Your task to perform on an android device: remove spam from my inbox in the gmail app Image 0: 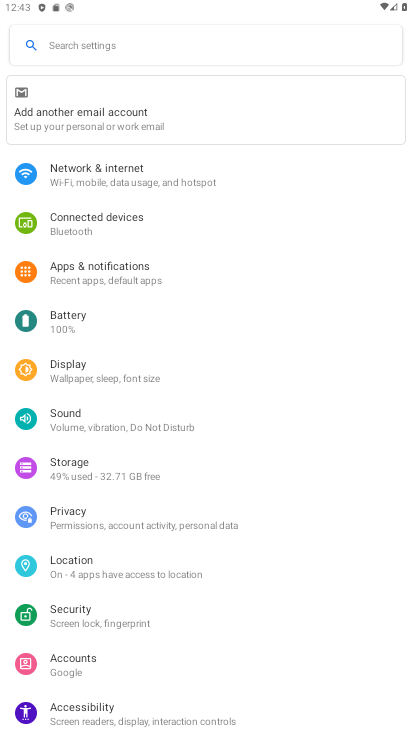
Step 0: press home button
Your task to perform on an android device: remove spam from my inbox in the gmail app Image 1: 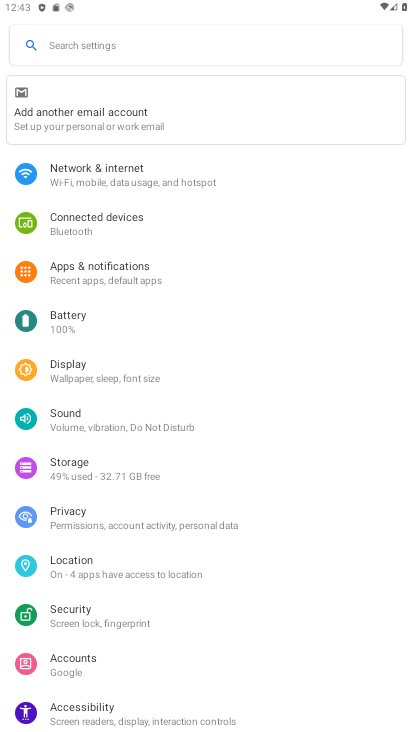
Step 1: drag from (190, 450) to (275, 1)
Your task to perform on an android device: remove spam from my inbox in the gmail app Image 2: 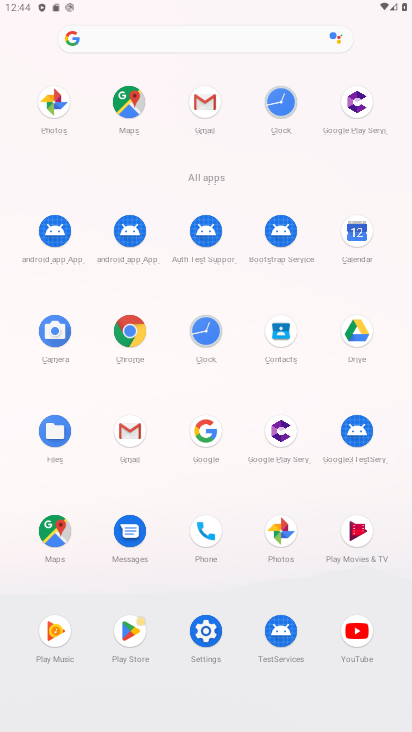
Step 2: click (204, 94)
Your task to perform on an android device: remove spam from my inbox in the gmail app Image 3: 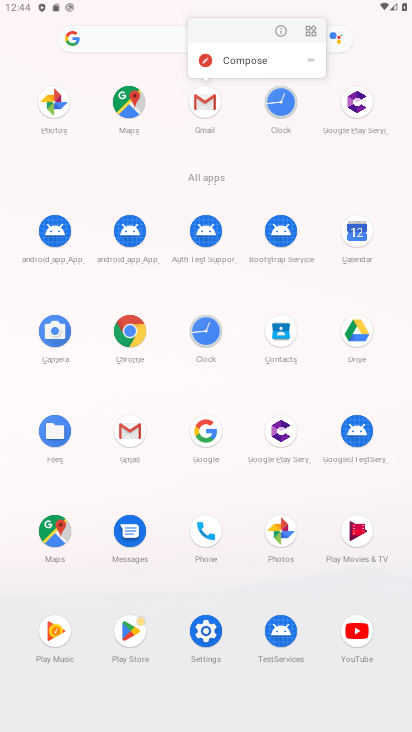
Step 3: click (279, 30)
Your task to perform on an android device: remove spam from my inbox in the gmail app Image 4: 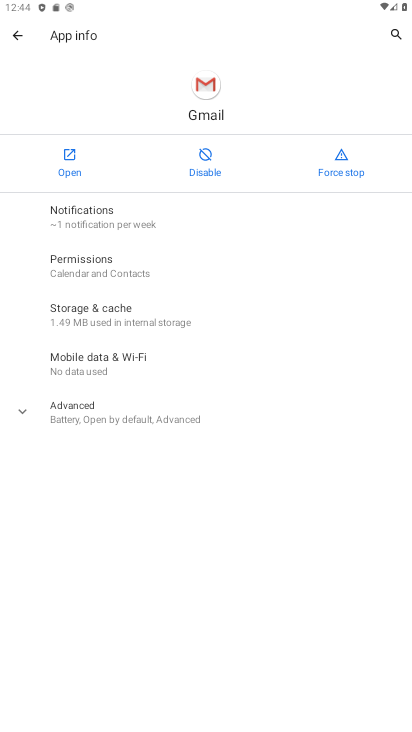
Step 4: click (80, 163)
Your task to perform on an android device: remove spam from my inbox in the gmail app Image 5: 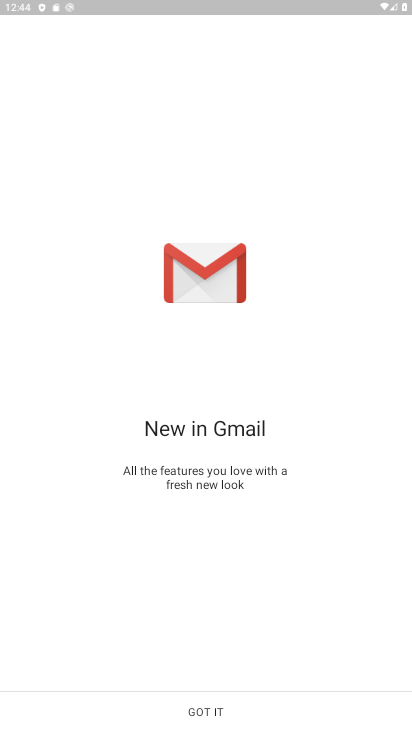
Step 5: click (191, 713)
Your task to perform on an android device: remove spam from my inbox in the gmail app Image 6: 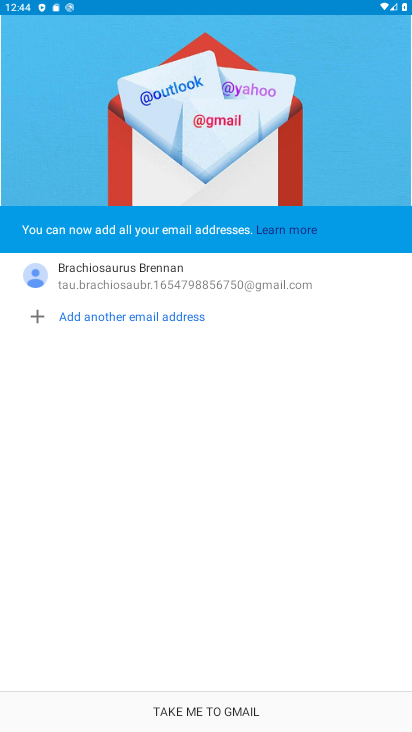
Step 6: click (203, 713)
Your task to perform on an android device: remove spam from my inbox in the gmail app Image 7: 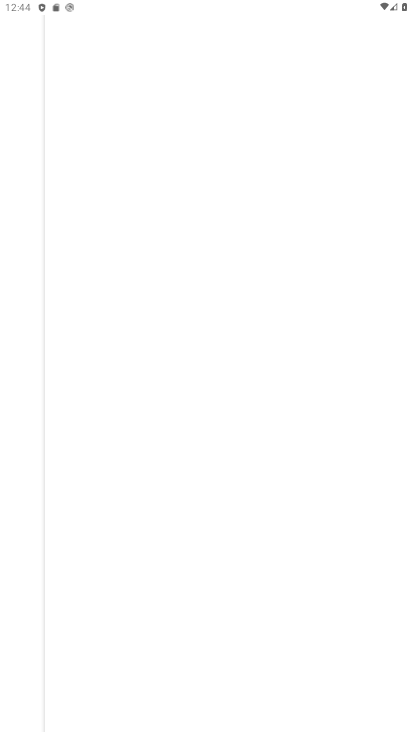
Step 7: drag from (247, 639) to (285, 0)
Your task to perform on an android device: remove spam from my inbox in the gmail app Image 8: 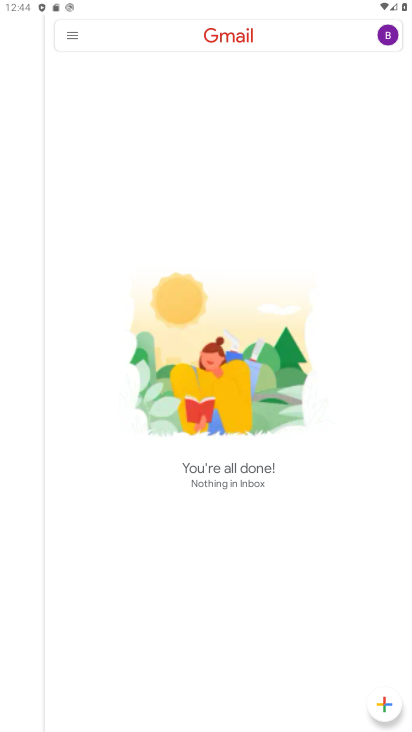
Step 8: drag from (218, 549) to (273, 87)
Your task to perform on an android device: remove spam from my inbox in the gmail app Image 9: 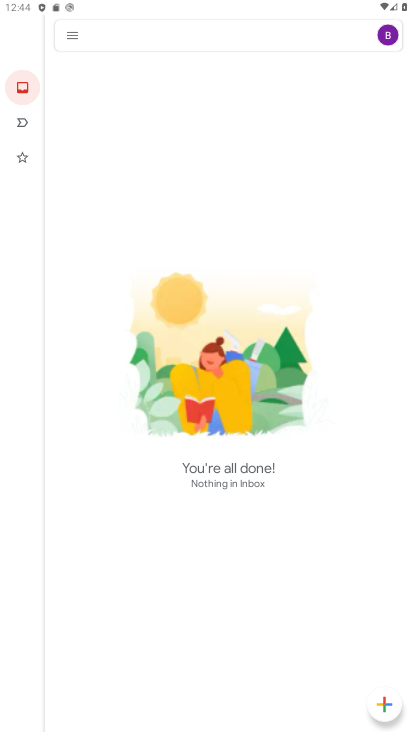
Step 9: drag from (234, 588) to (243, 399)
Your task to perform on an android device: remove spam from my inbox in the gmail app Image 10: 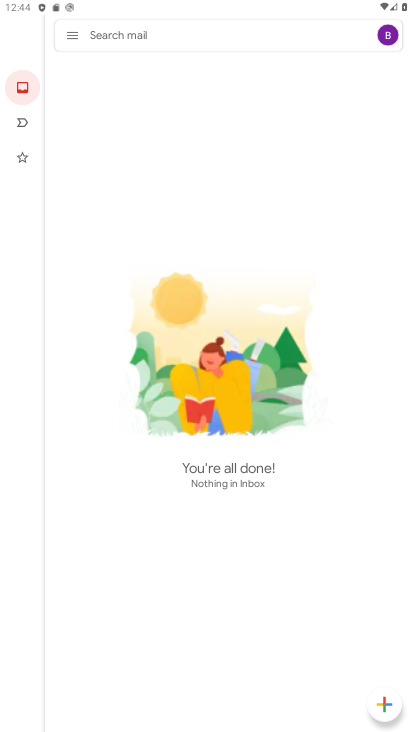
Step 10: click (83, 34)
Your task to perform on an android device: remove spam from my inbox in the gmail app Image 11: 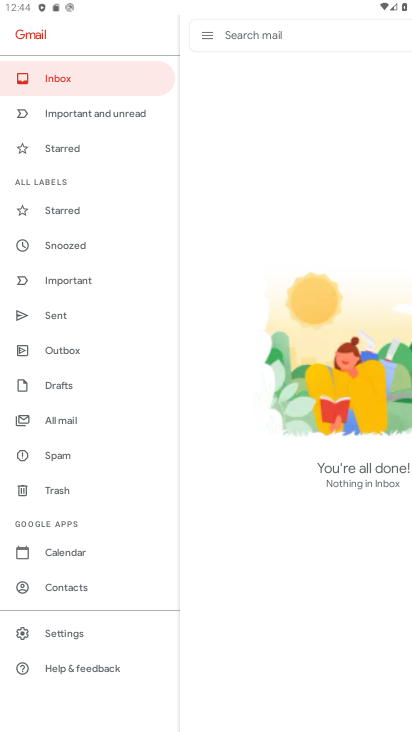
Step 11: click (53, 447)
Your task to perform on an android device: remove spam from my inbox in the gmail app Image 12: 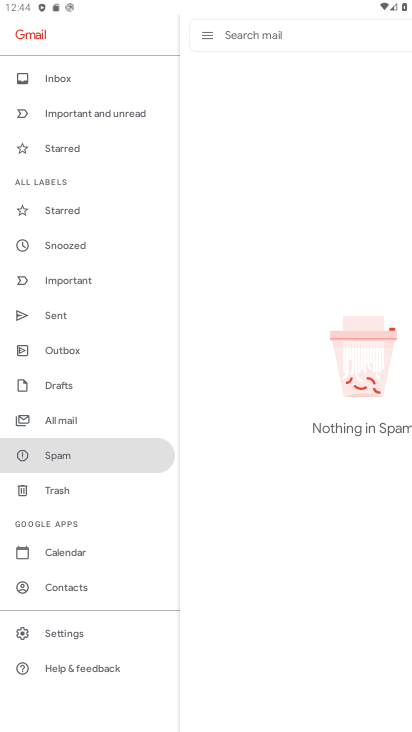
Step 12: click (99, 456)
Your task to perform on an android device: remove spam from my inbox in the gmail app Image 13: 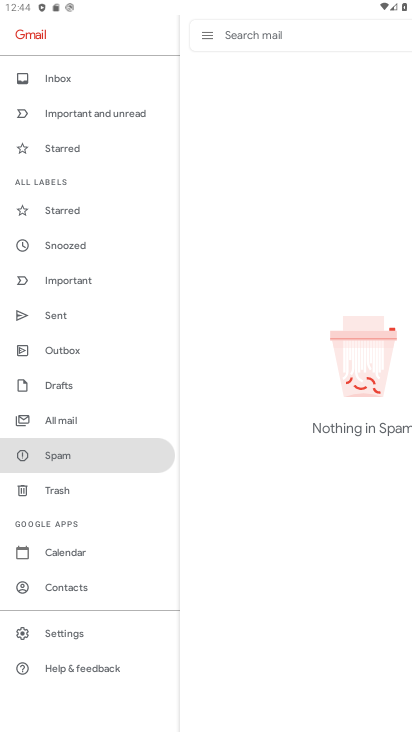
Step 13: task complete